Your task to perform on an android device: View the shopping cart on walmart. Add amazon basics triple a to the cart on walmart, then select checkout. Image 0: 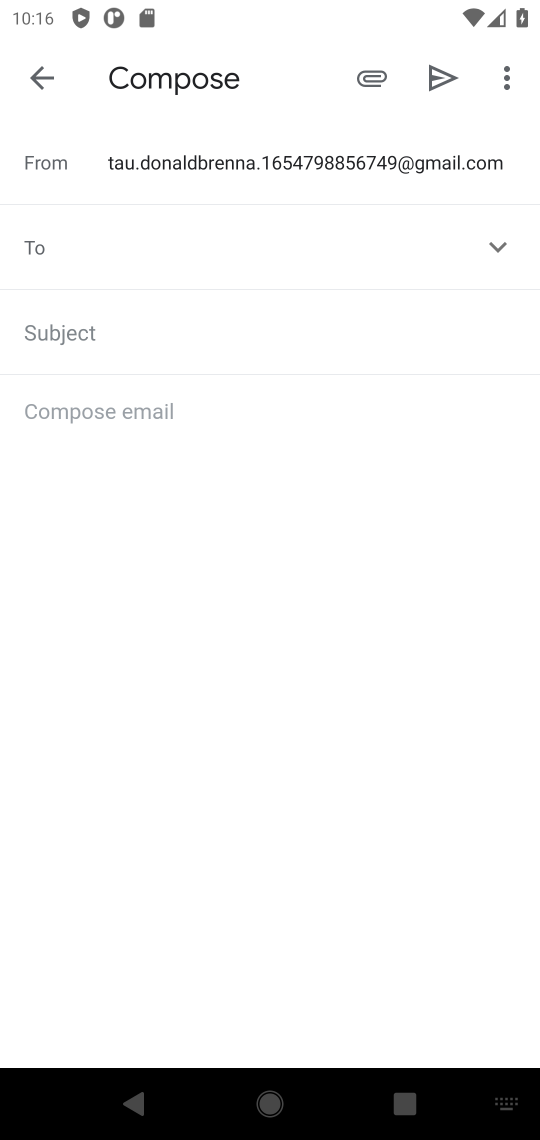
Step 0: press home button
Your task to perform on an android device: View the shopping cart on walmart. Add amazon basics triple a to the cart on walmart, then select checkout. Image 1: 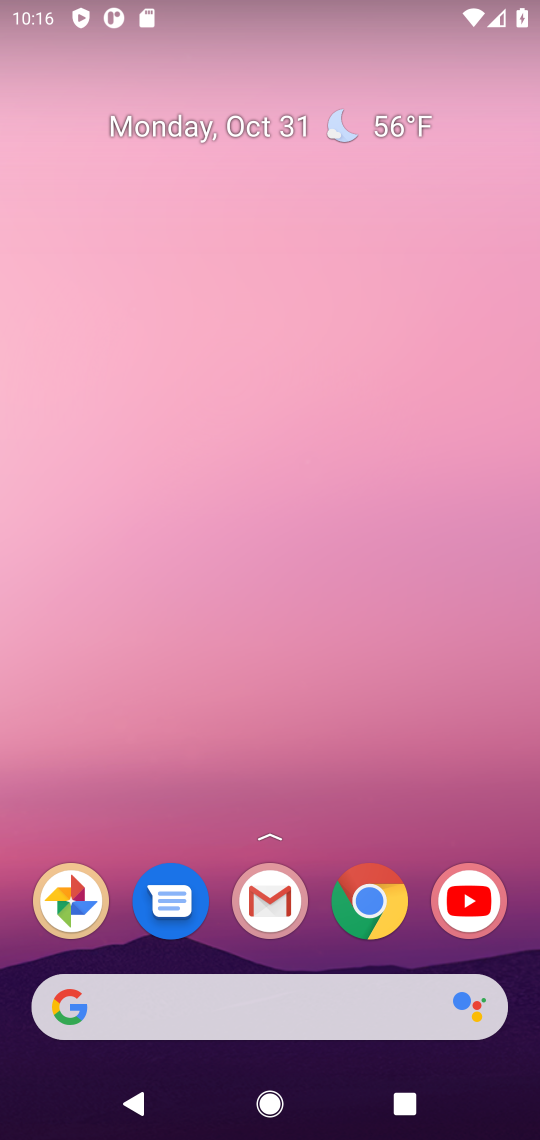
Step 1: drag from (315, 693) to (299, 268)
Your task to perform on an android device: View the shopping cart on walmart. Add amazon basics triple a to the cart on walmart, then select checkout. Image 2: 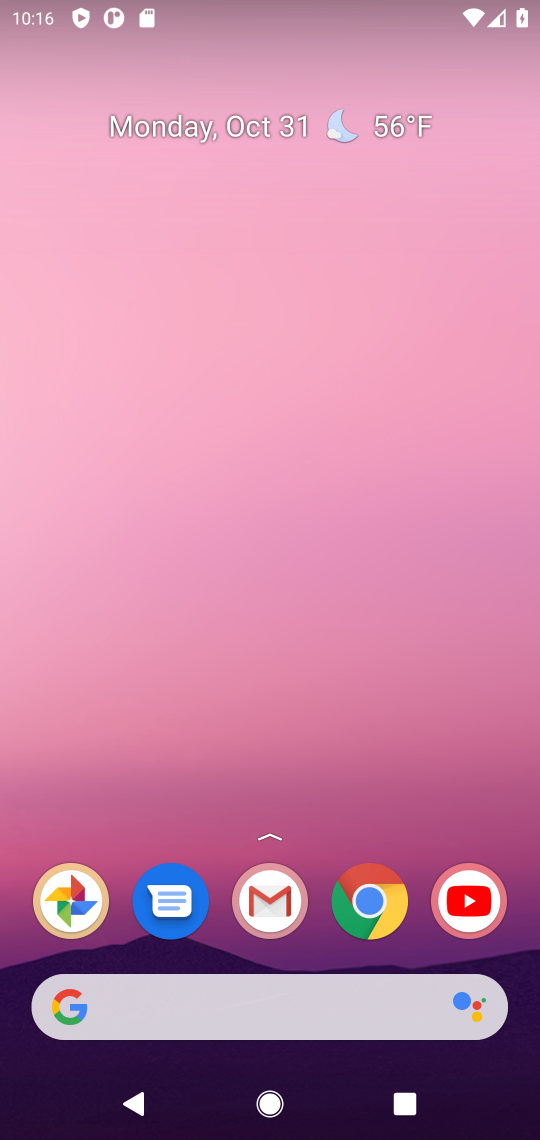
Step 2: drag from (180, 899) to (180, 280)
Your task to perform on an android device: View the shopping cart on walmart. Add amazon basics triple a to the cart on walmart, then select checkout. Image 3: 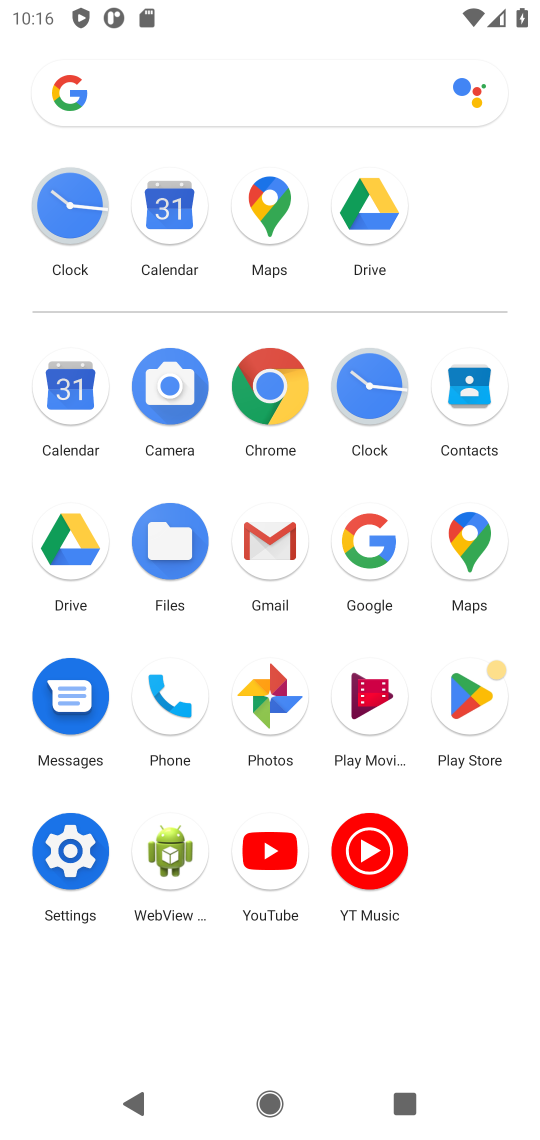
Step 3: click (371, 530)
Your task to perform on an android device: View the shopping cart on walmart. Add amazon basics triple a to the cart on walmart, then select checkout. Image 4: 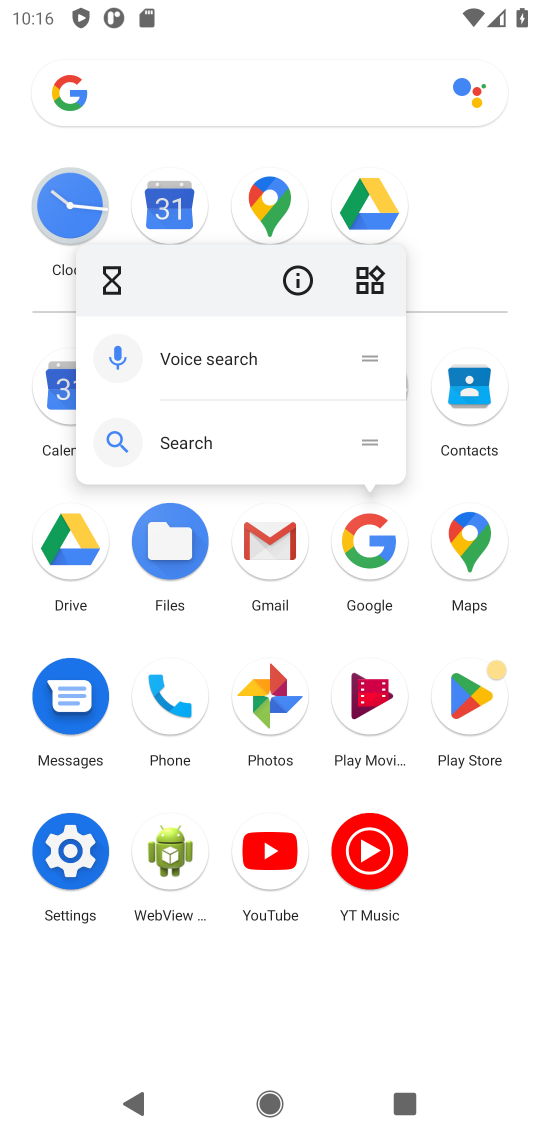
Step 4: click (374, 510)
Your task to perform on an android device: View the shopping cart on walmart. Add amazon basics triple a to the cart on walmart, then select checkout. Image 5: 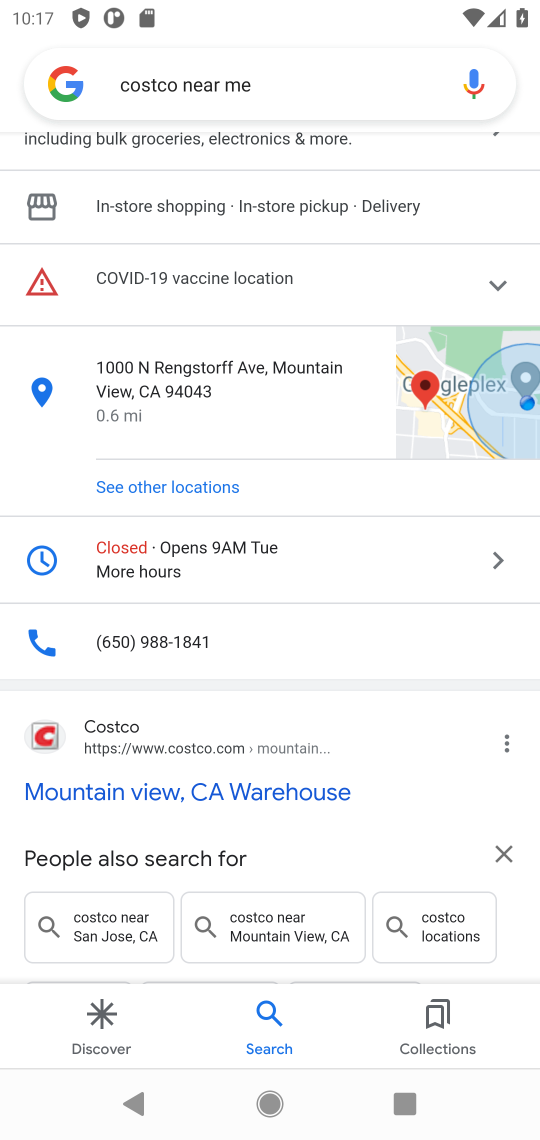
Step 5: click (293, 87)
Your task to perform on an android device: View the shopping cart on walmart. Add amazon basics triple a to the cart on walmart, then select checkout. Image 6: 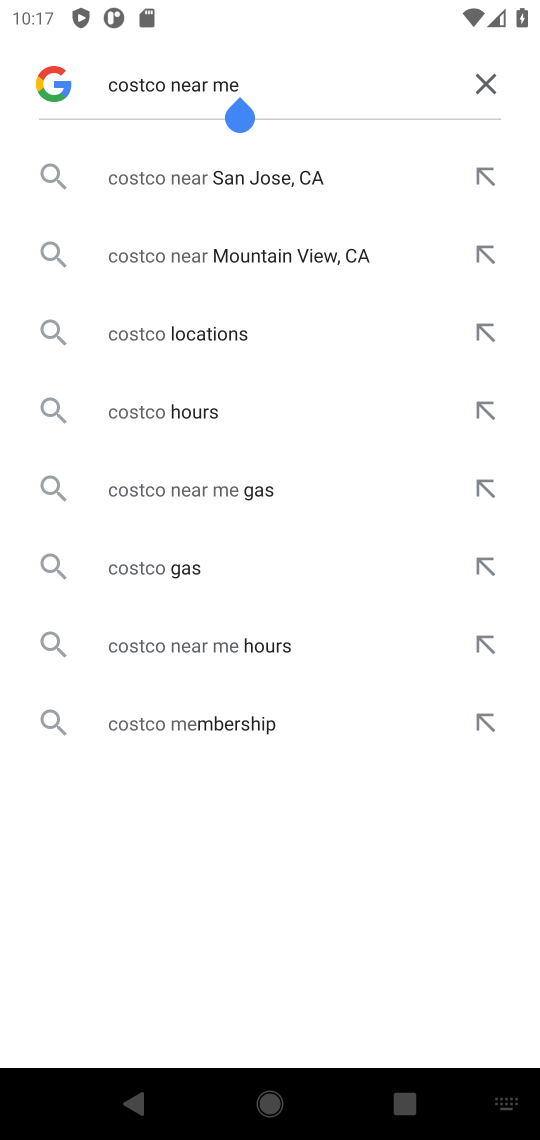
Step 6: click (485, 80)
Your task to perform on an android device: View the shopping cart on walmart. Add amazon basics triple a to the cart on walmart, then select checkout. Image 7: 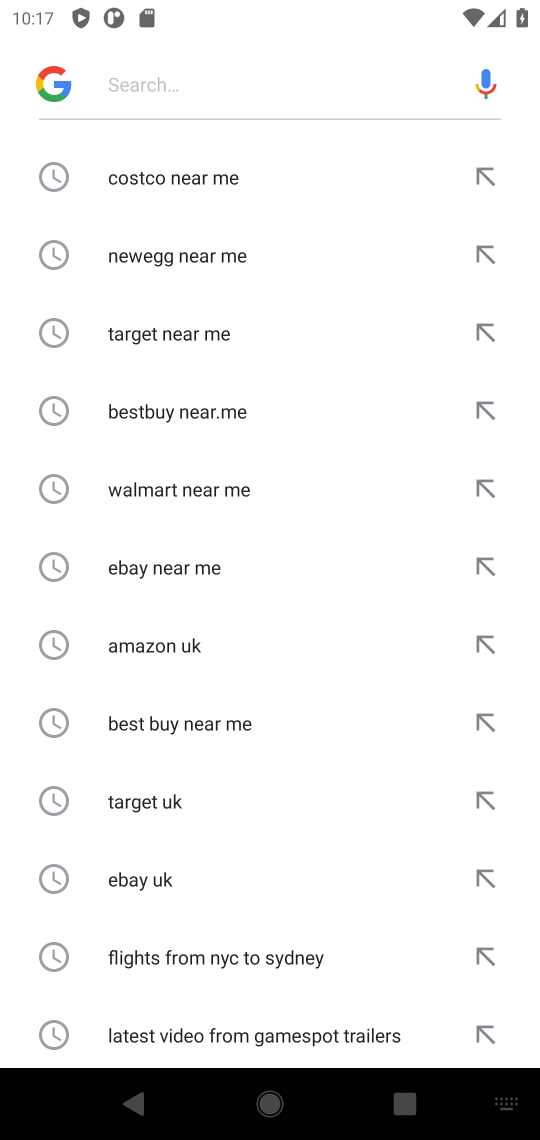
Step 7: click (180, 89)
Your task to perform on an android device: View the shopping cart on walmart. Add amazon basics triple a to the cart on walmart, then select checkout. Image 8: 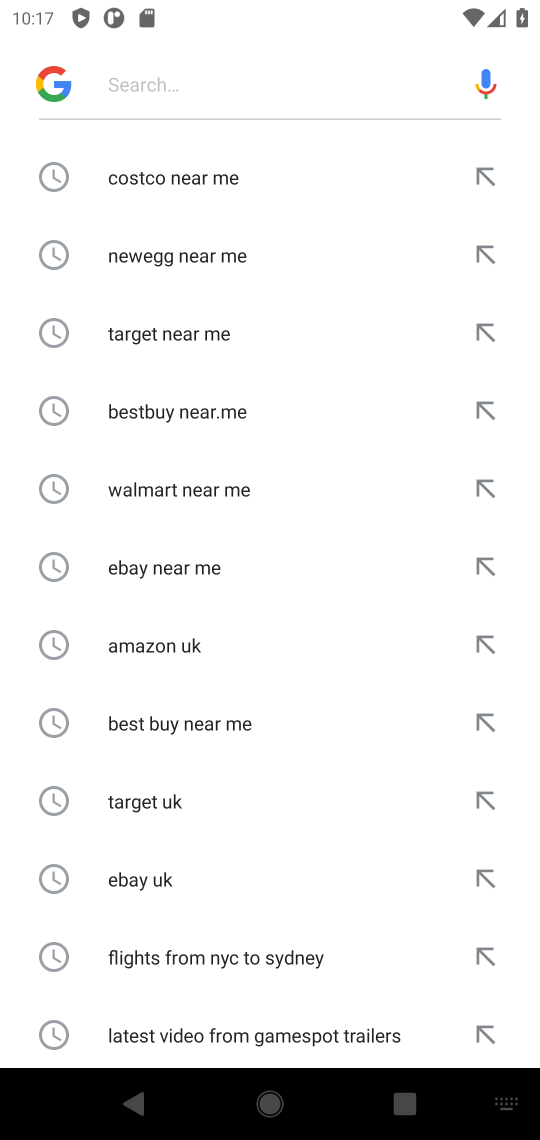
Step 8: type "walmart "
Your task to perform on an android device: View the shopping cart on walmart. Add amazon basics triple a to the cart on walmart, then select checkout. Image 9: 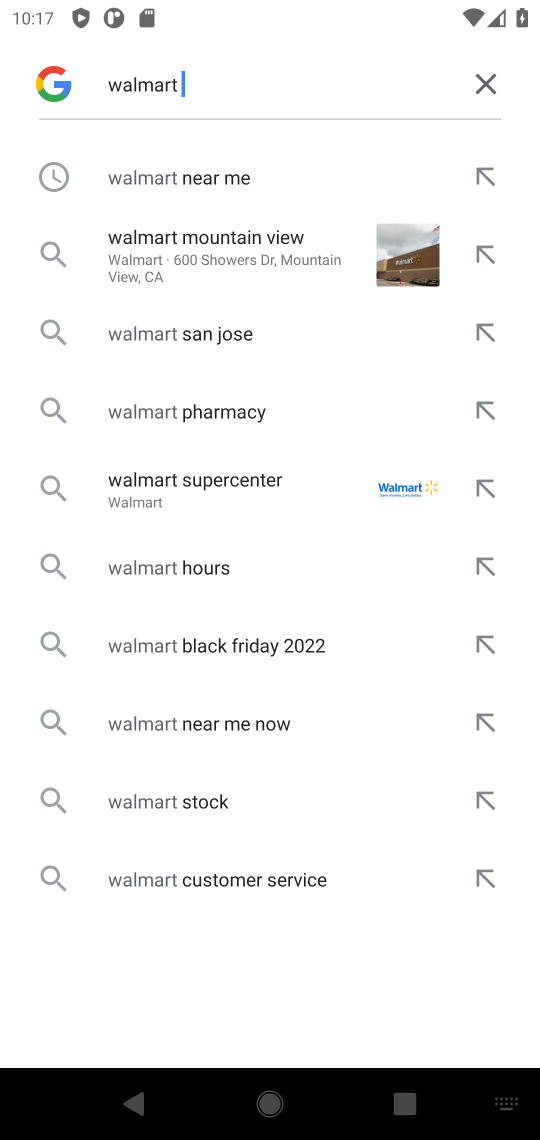
Step 9: click (169, 170)
Your task to perform on an android device: View the shopping cart on walmart. Add amazon basics triple a to the cart on walmart, then select checkout. Image 10: 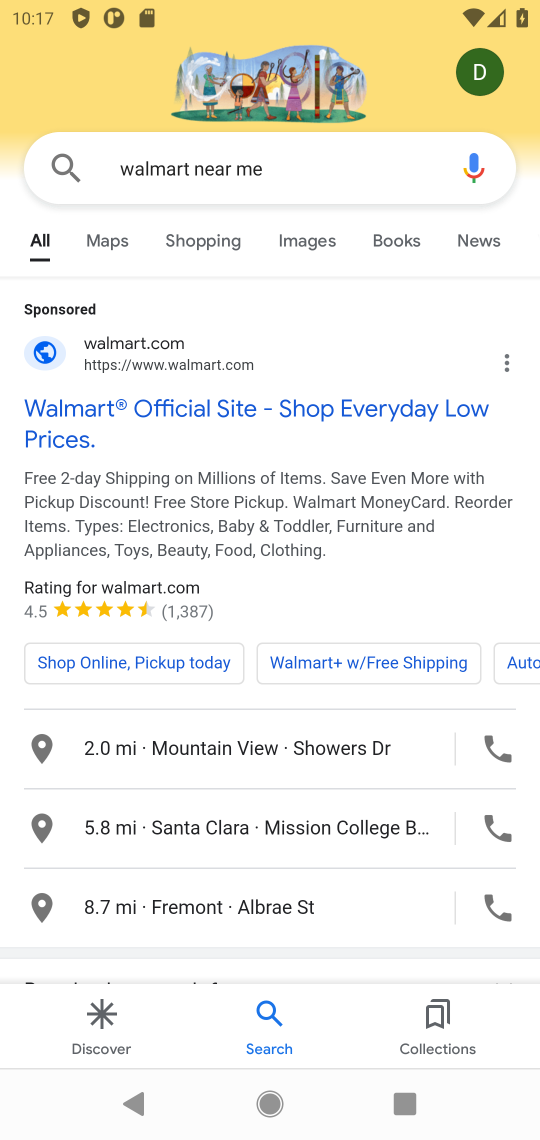
Step 10: click (137, 398)
Your task to perform on an android device: View the shopping cart on walmart. Add amazon basics triple a to the cart on walmart, then select checkout. Image 11: 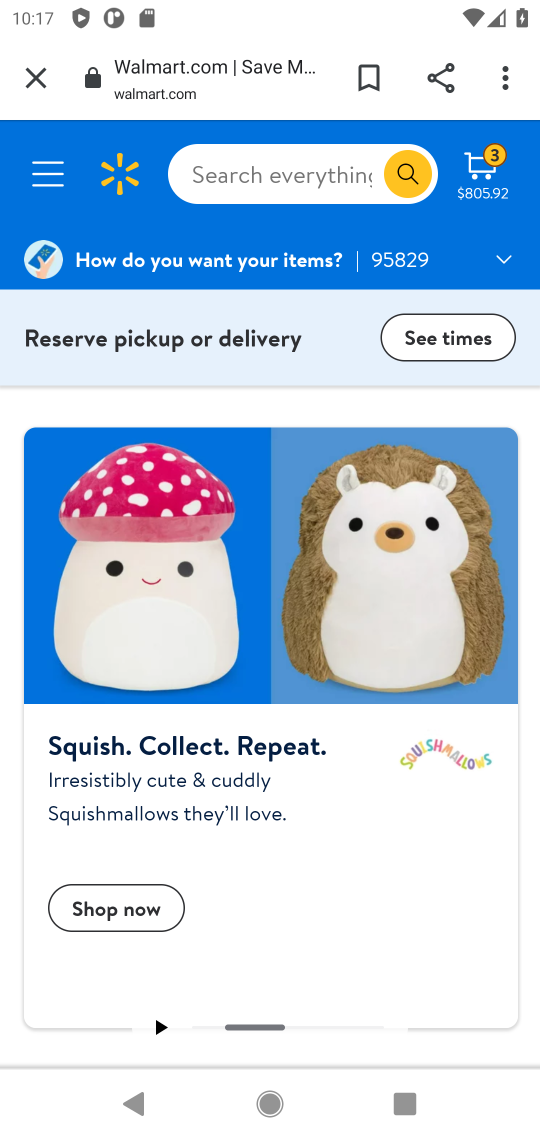
Step 11: click (315, 163)
Your task to perform on an android device: View the shopping cart on walmart. Add amazon basics triple a to the cart on walmart, then select checkout. Image 12: 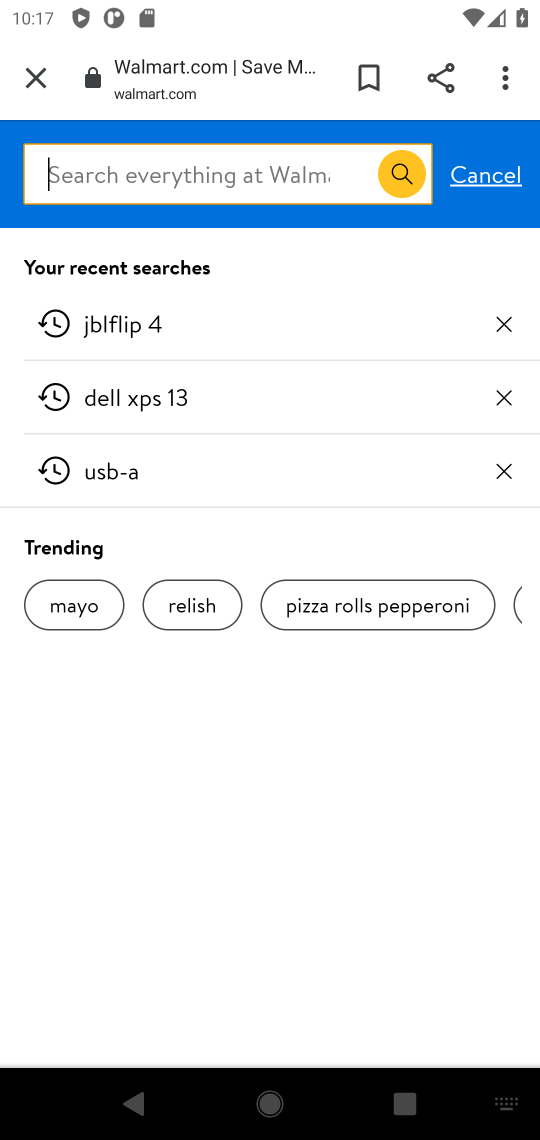
Step 12: click (166, 164)
Your task to perform on an android device: View the shopping cart on walmart. Add amazon basics triple a to the cart on walmart, then select checkout. Image 13: 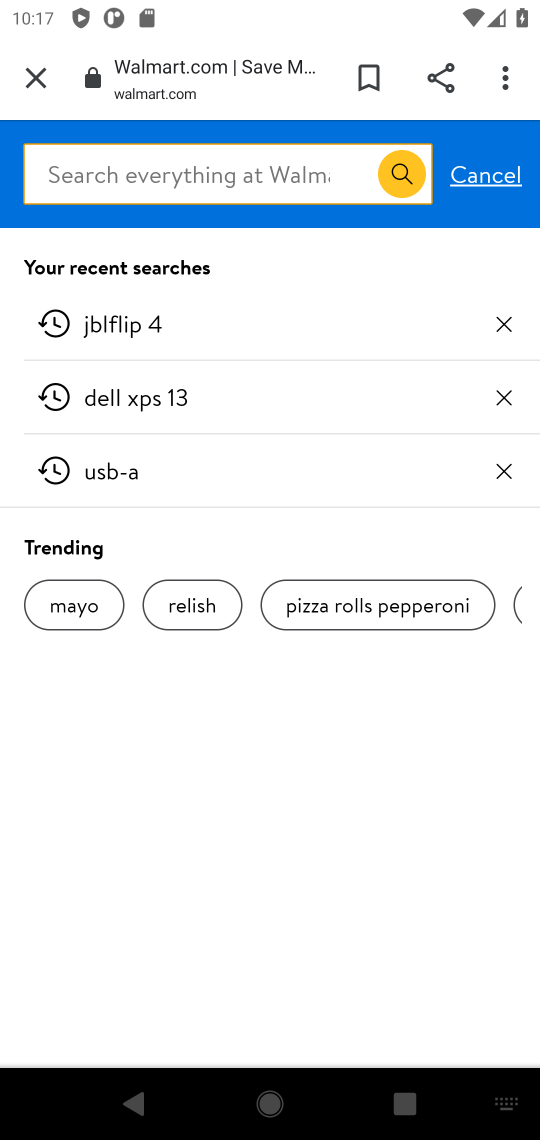
Step 13: type "triple "
Your task to perform on an android device: View the shopping cart on walmart. Add amazon basics triple a to the cart on walmart, then select checkout. Image 14: 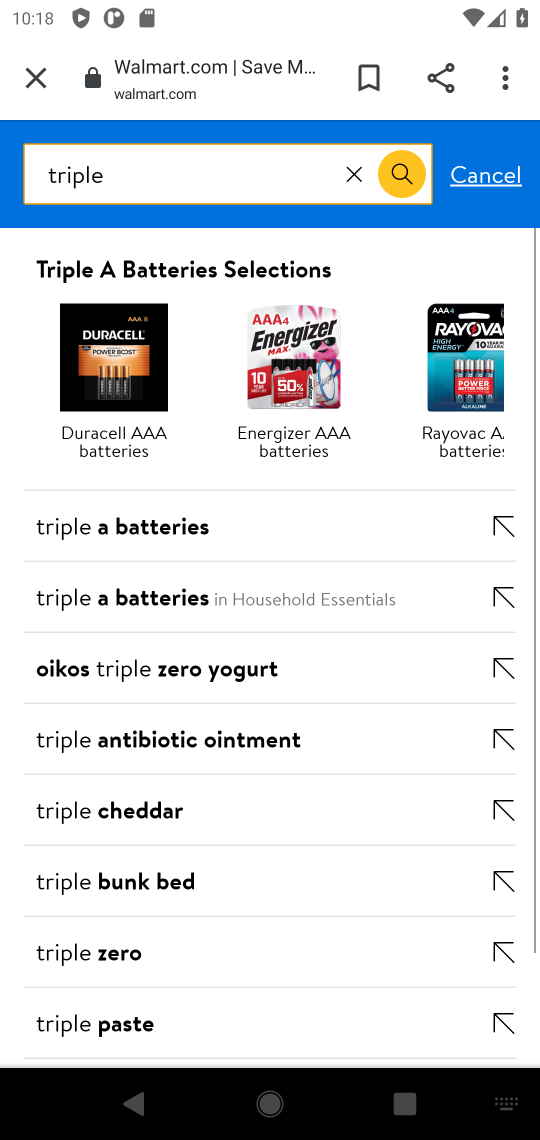
Step 14: click (144, 534)
Your task to perform on an android device: View the shopping cart on walmart. Add amazon basics triple a to the cart on walmart, then select checkout. Image 15: 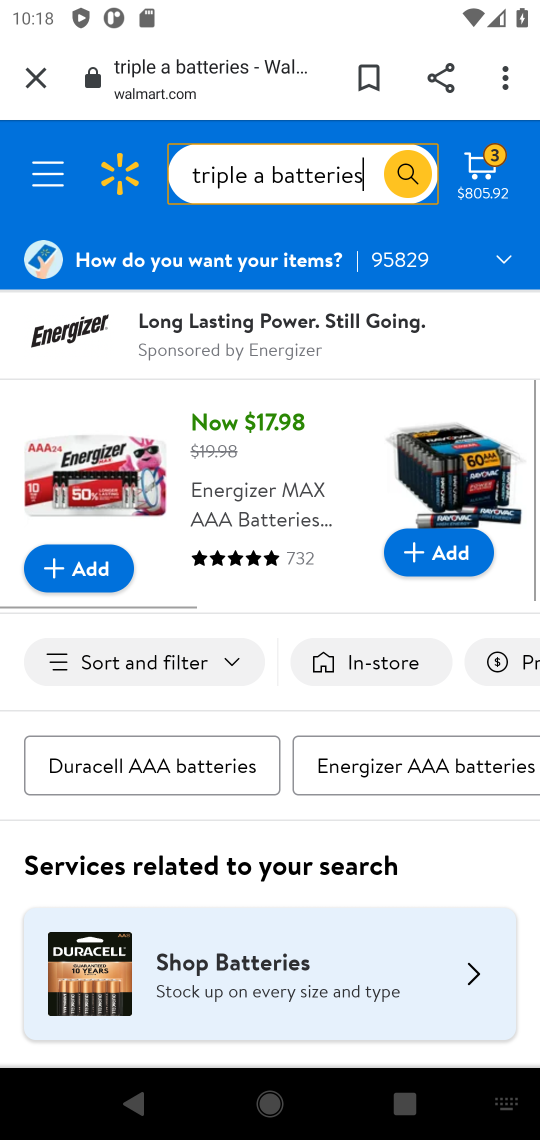
Step 15: click (62, 563)
Your task to perform on an android device: View the shopping cart on walmart. Add amazon basics triple a to the cart on walmart, then select checkout. Image 16: 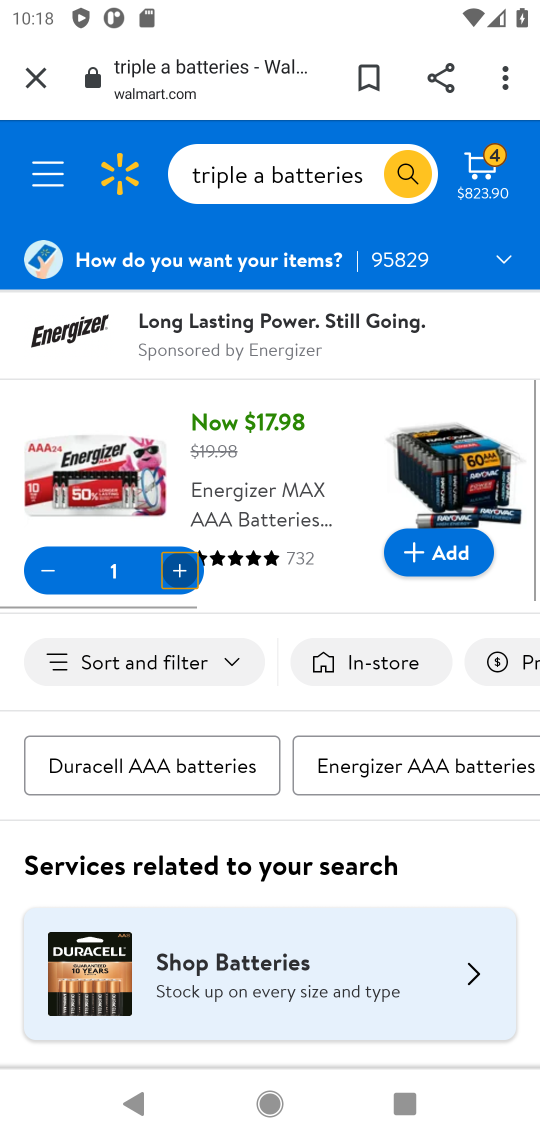
Step 16: task complete